Your task to perform on an android device: toggle notifications settings in the gmail app Image 0: 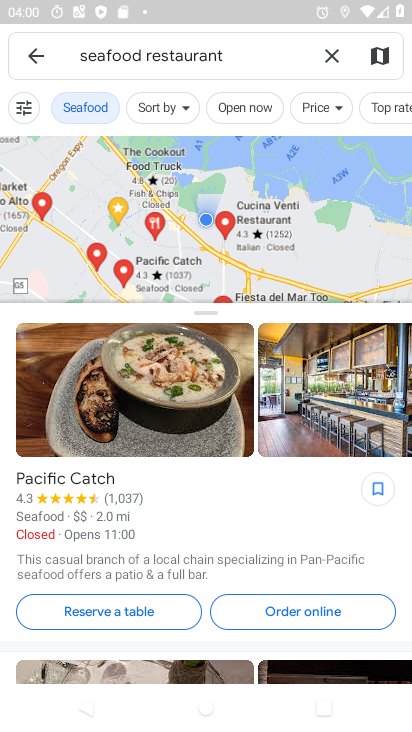
Step 0: press home button
Your task to perform on an android device: toggle notifications settings in the gmail app Image 1: 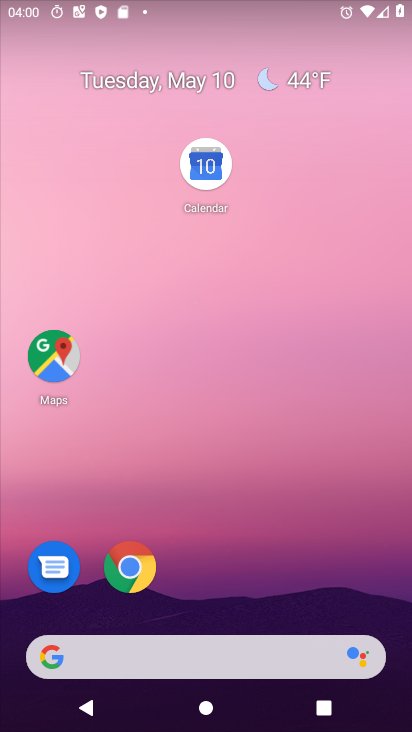
Step 1: drag from (239, 548) to (291, 33)
Your task to perform on an android device: toggle notifications settings in the gmail app Image 2: 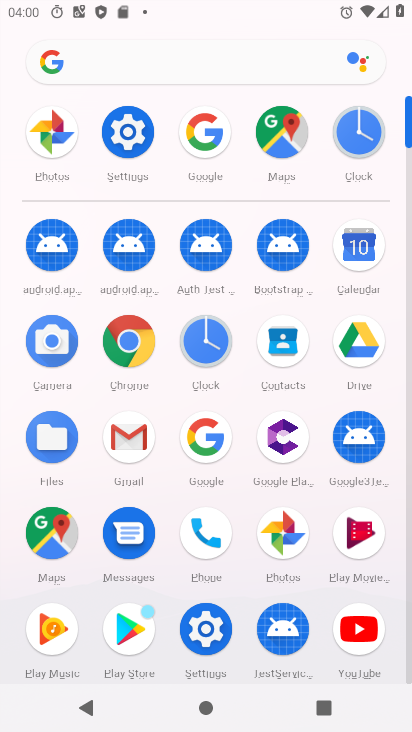
Step 2: click (131, 438)
Your task to perform on an android device: toggle notifications settings in the gmail app Image 3: 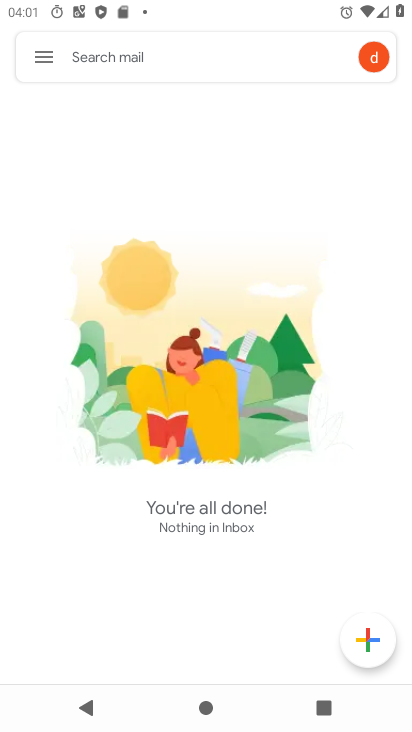
Step 3: click (45, 50)
Your task to perform on an android device: toggle notifications settings in the gmail app Image 4: 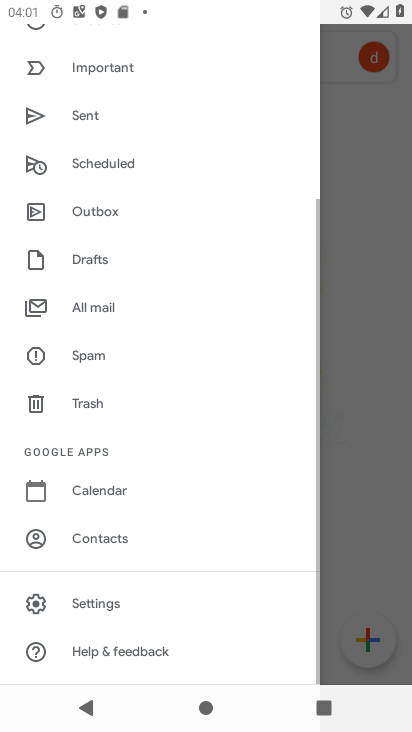
Step 4: click (110, 588)
Your task to perform on an android device: toggle notifications settings in the gmail app Image 5: 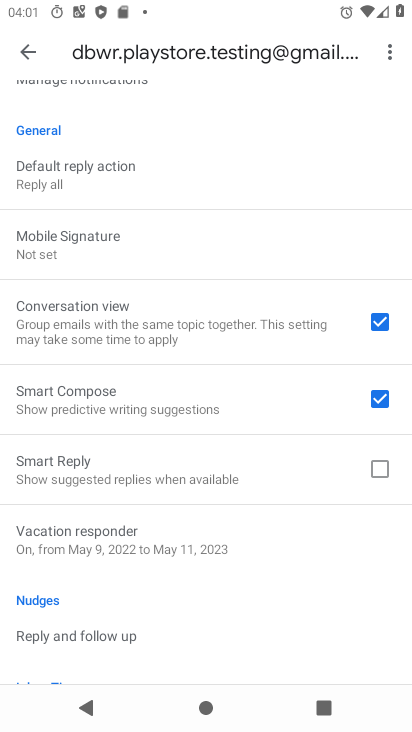
Step 5: drag from (139, 239) to (197, 563)
Your task to perform on an android device: toggle notifications settings in the gmail app Image 6: 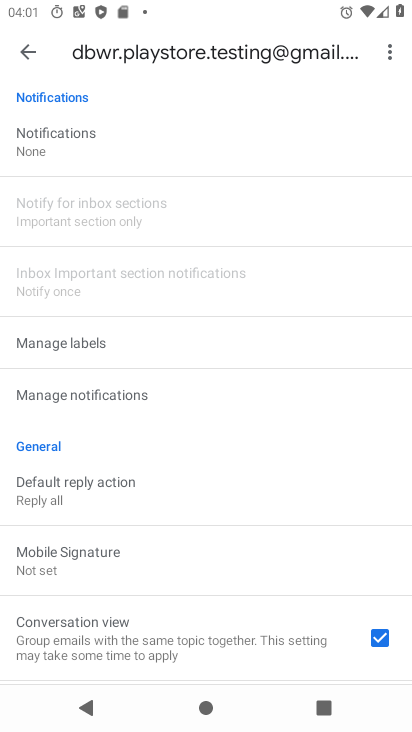
Step 6: click (71, 145)
Your task to perform on an android device: toggle notifications settings in the gmail app Image 7: 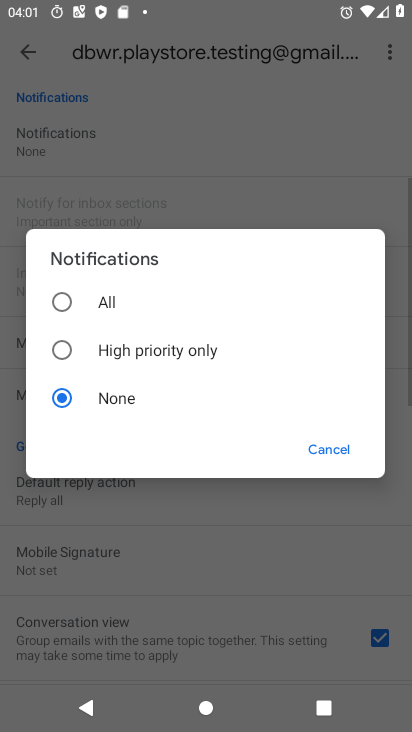
Step 7: click (57, 297)
Your task to perform on an android device: toggle notifications settings in the gmail app Image 8: 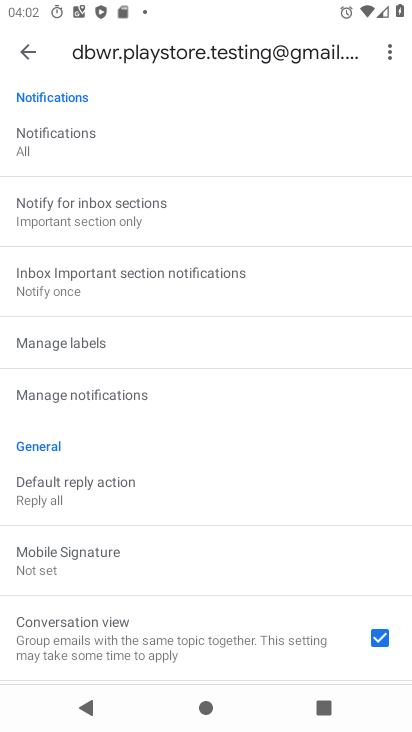
Step 8: task complete